Your task to perform on an android device: Turn off the flashlight Image 0: 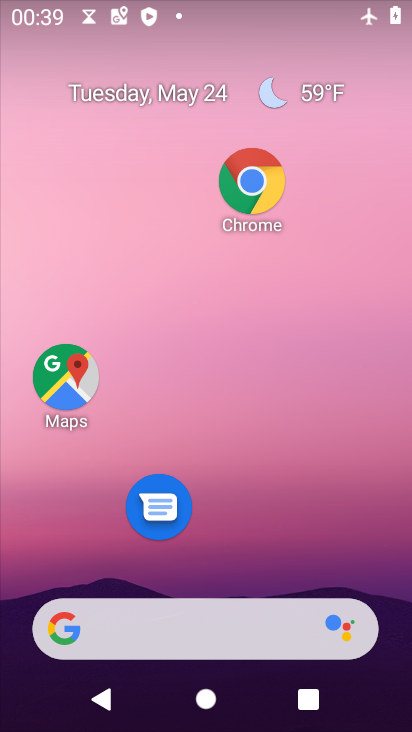
Step 0: drag from (262, 521) to (317, 225)
Your task to perform on an android device: Turn off the flashlight Image 1: 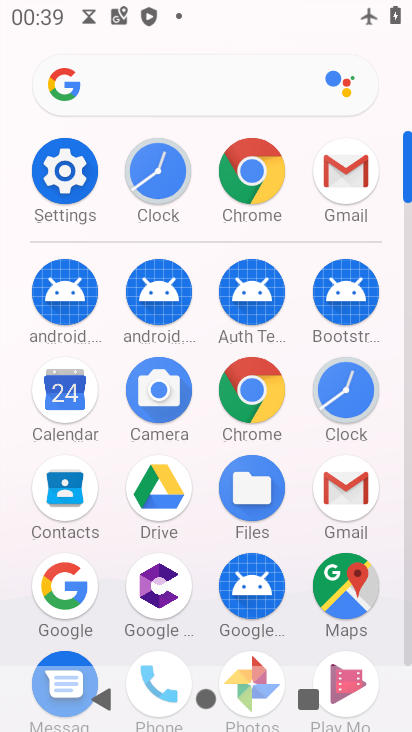
Step 1: click (66, 166)
Your task to perform on an android device: Turn off the flashlight Image 2: 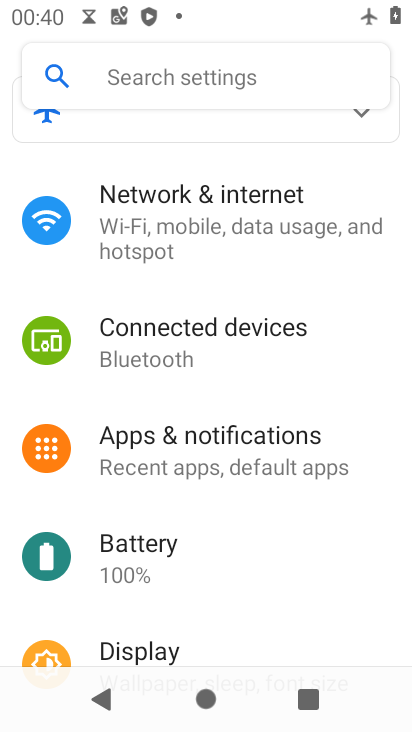
Step 2: task complete